Your task to perform on an android device: Go to location settings Image 0: 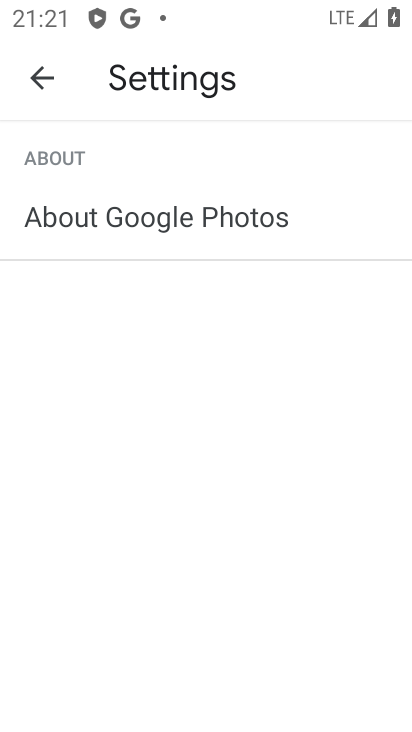
Step 0: click (31, 86)
Your task to perform on an android device: Go to location settings Image 1: 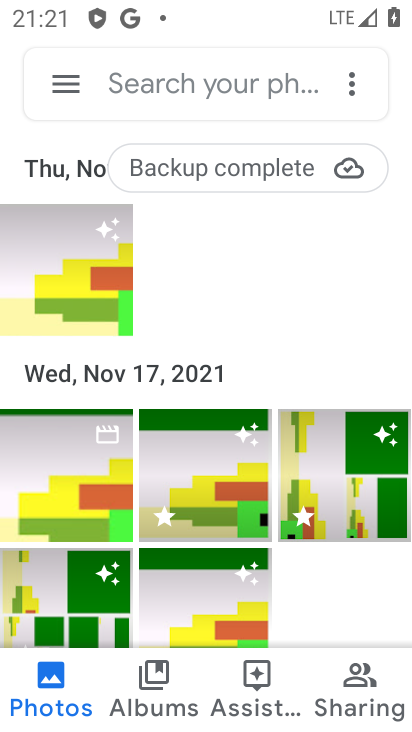
Step 1: press back button
Your task to perform on an android device: Go to location settings Image 2: 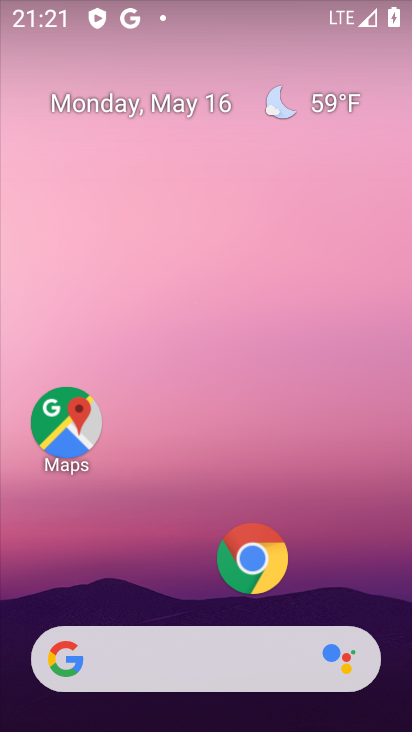
Step 2: drag from (184, 560) to (286, 66)
Your task to perform on an android device: Go to location settings Image 3: 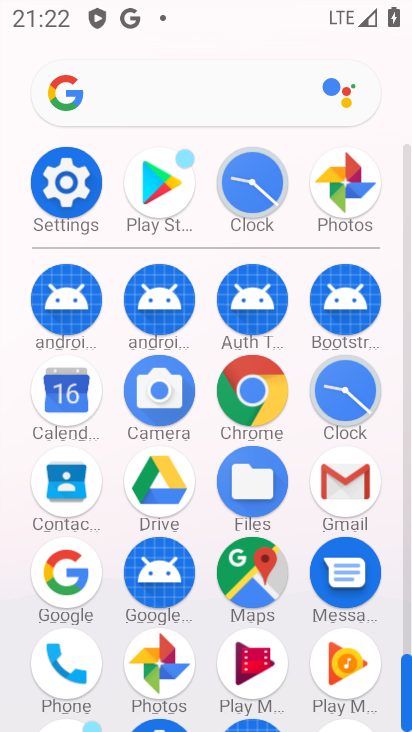
Step 3: click (58, 167)
Your task to perform on an android device: Go to location settings Image 4: 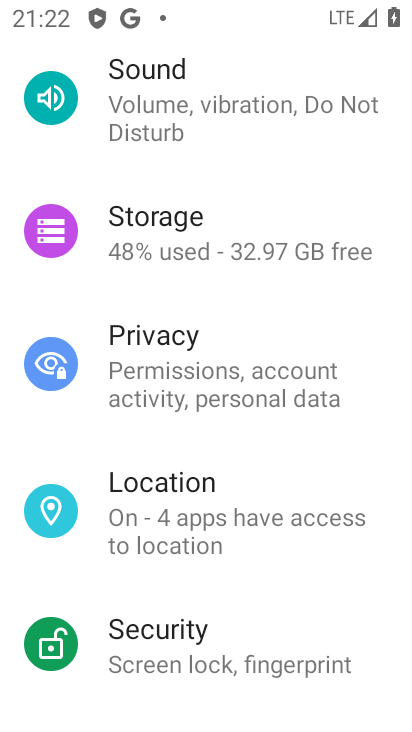
Step 4: click (184, 529)
Your task to perform on an android device: Go to location settings Image 5: 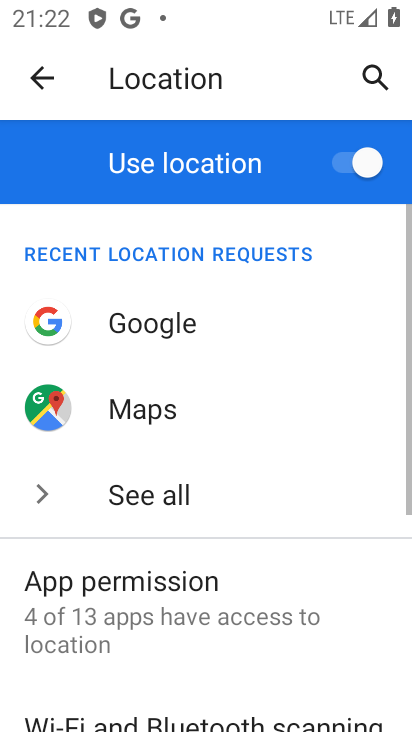
Step 5: task complete